Your task to perform on an android device: turn on the 24-hour format for clock Image 0: 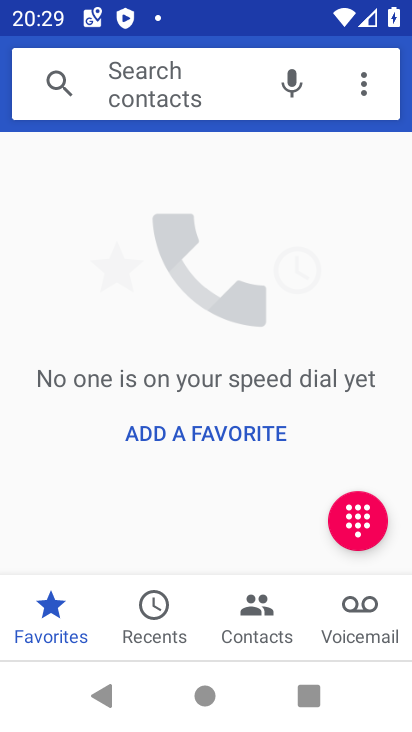
Step 0: click (55, 356)
Your task to perform on an android device: turn on the 24-hour format for clock Image 1: 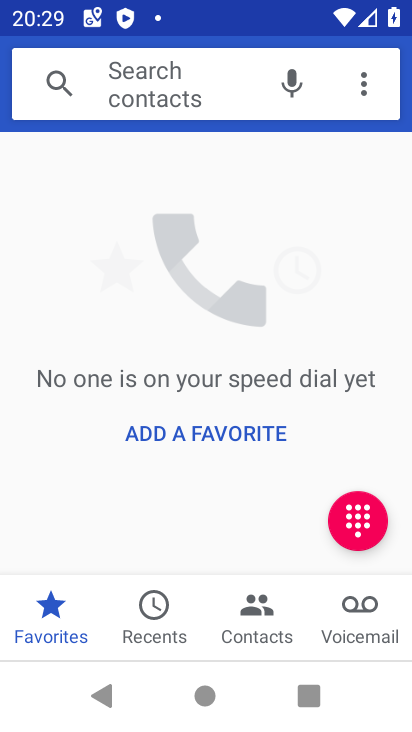
Step 1: press home button
Your task to perform on an android device: turn on the 24-hour format for clock Image 2: 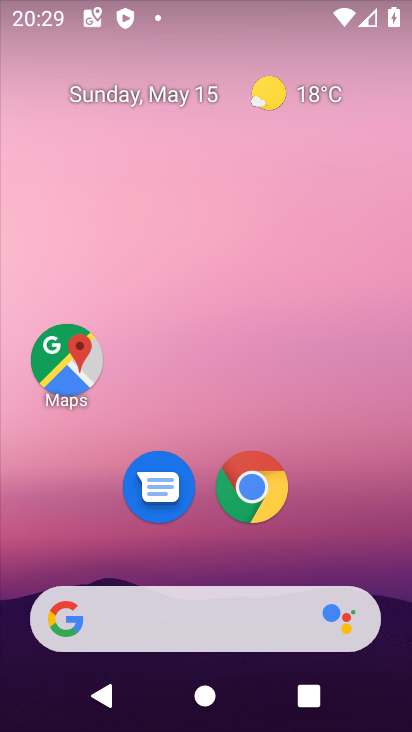
Step 2: drag from (392, 648) to (389, 322)
Your task to perform on an android device: turn on the 24-hour format for clock Image 3: 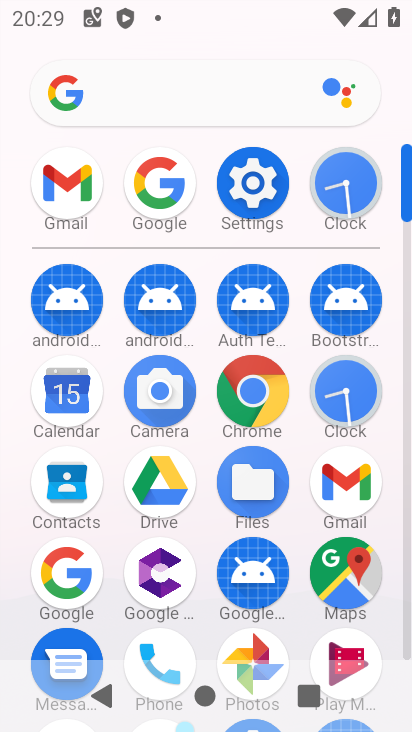
Step 3: click (348, 391)
Your task to perform on an android device: turn on the 24-hour format for clock Image 4: 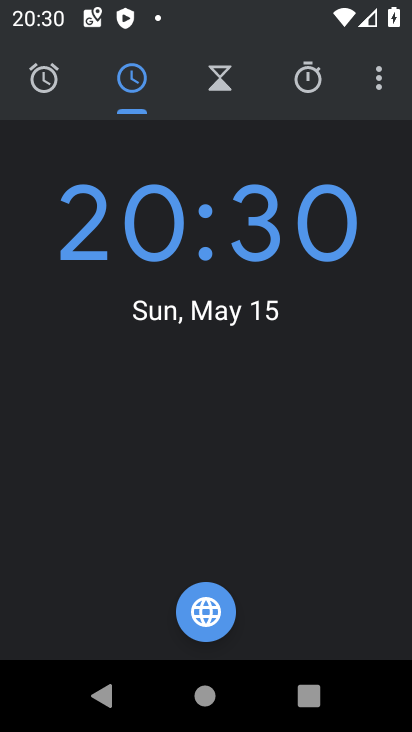
Step 4: click (376, 75)
Your task to perform on an android device: turn on the 24-hour format for clock Image 5: 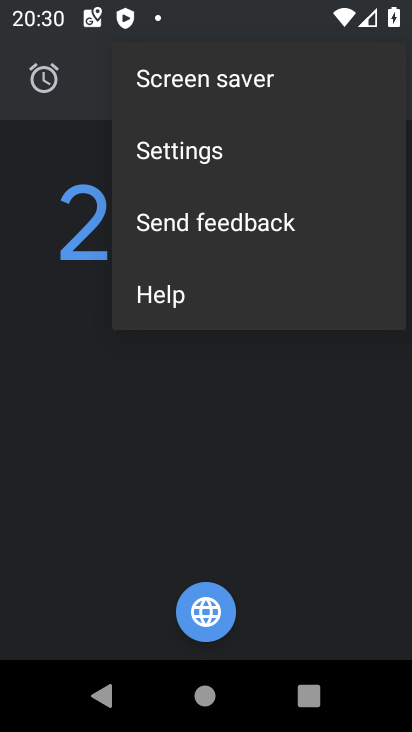
Step 5: click (197, 145)
Your task to perform on an android device: turn on the 24-hour format for clock Image 6: 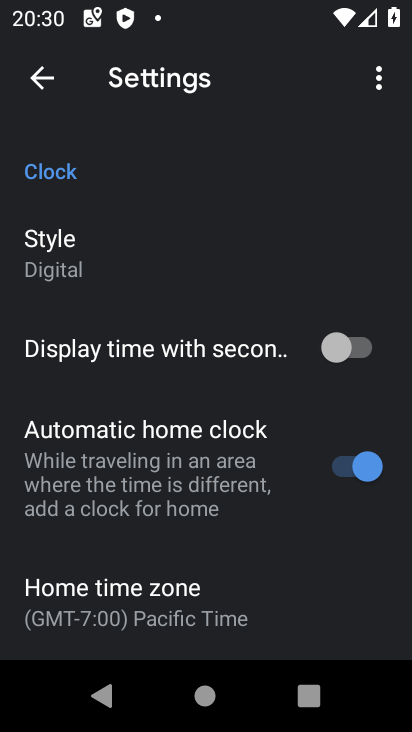
Step 6: drag from (243, 581) to (245, 272)
Your task to perform on an android device: turn on the 24-hour format for clock Image 7: 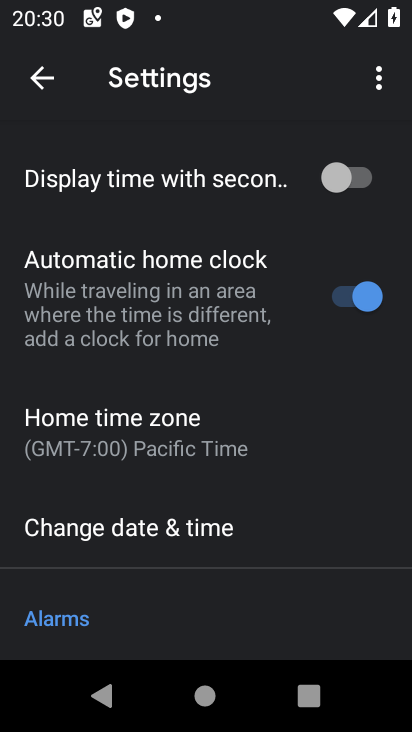
Step 7: drag from (266, 579) to (241, 292)
Your task to perform on an android device: turn on the 24-hour format for clock Image 8: 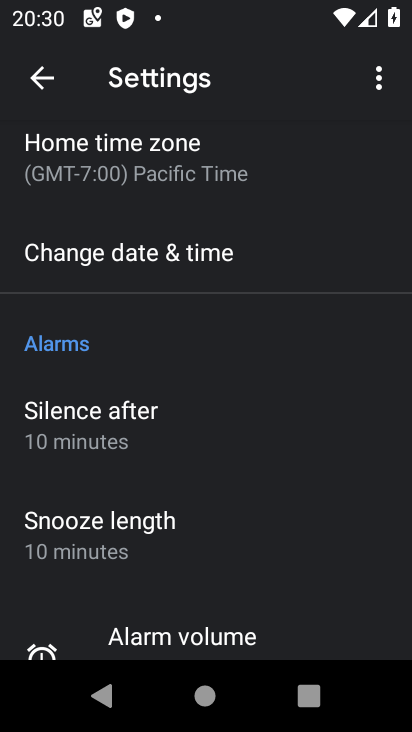
Step 8: click (126, 253)
Your task to perform on an android device: turn on the 24-hour format for clock Image 9: 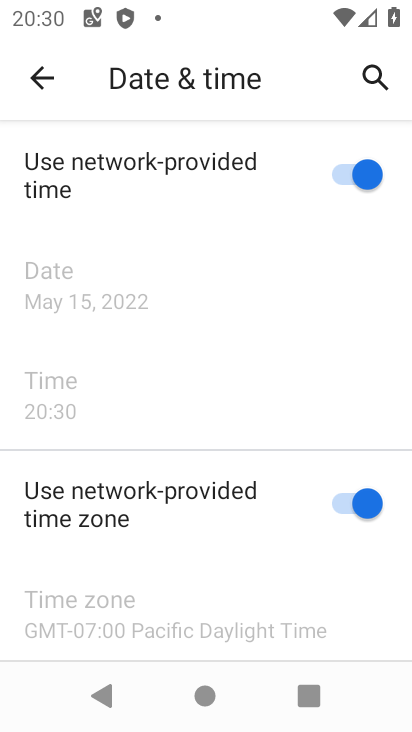
Step 9: drag from (307, 577) to (266, 261)
Your task to perform on an android device: turn on the 24-hour format for clock Image 10: 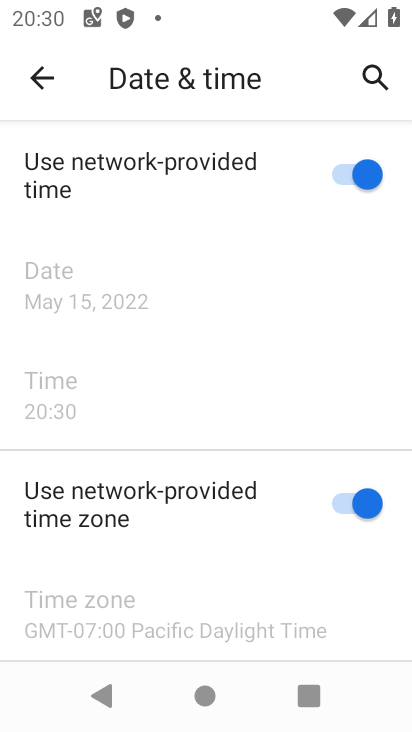
Step 10: drag from (233, 627) to (210, 334)
Your task to perform on an android device: turn on the 24-hour format for clock Image 11: 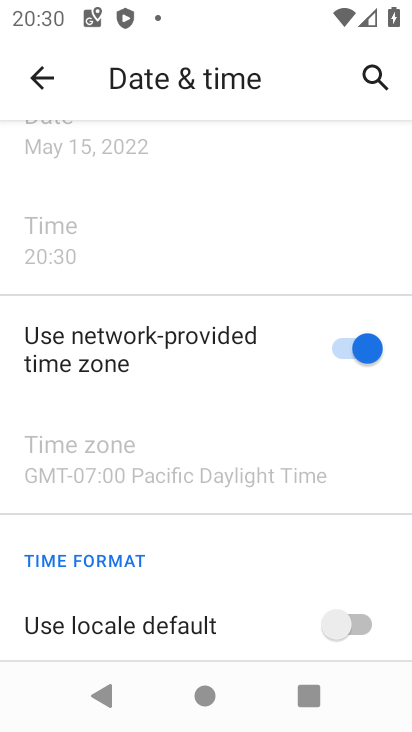
Step 11: drag from (241, 604) to (246, 347)
Your task to perform on an android device: turn on the 24-hour format for clock Image 12: 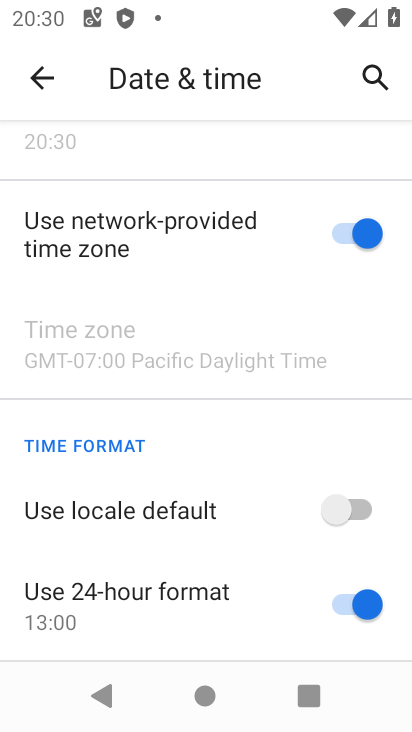
Step 12: click (248, 332)
Your task to perform on an android device: turn on the 24-hour format for clock Image 13: 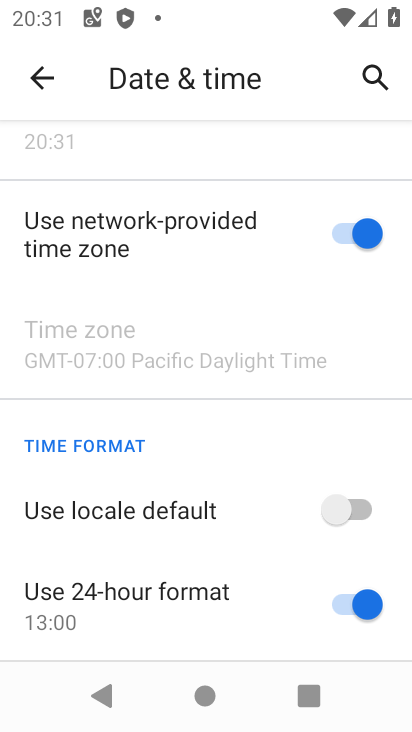
Step 13: task complete